Your task to perform on an android device: Is it going to rain this weekend? Image 0: 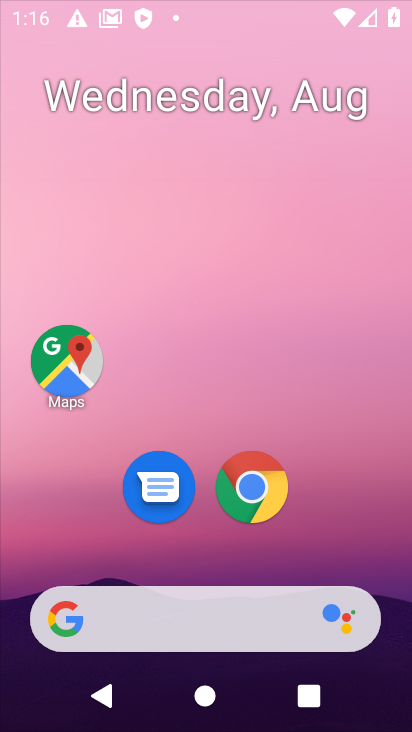
Step 0: press home button
Your task to perform on an android device: Is it going to rain this weekend? Image 1: 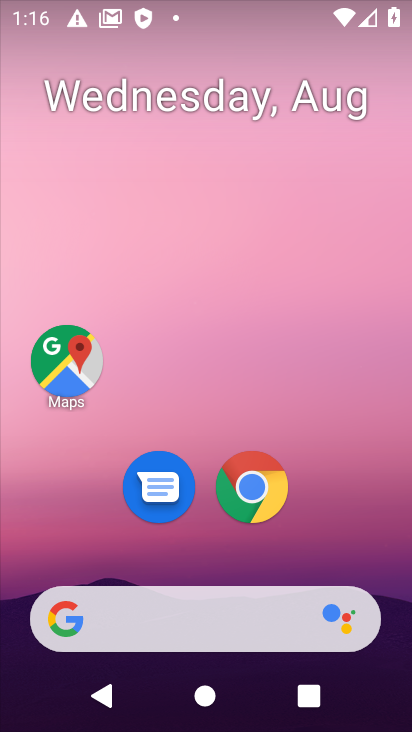
Step 1: click (53, 614)
Your task to perform on an android device: Is it going to rain this weekend? Image 2: 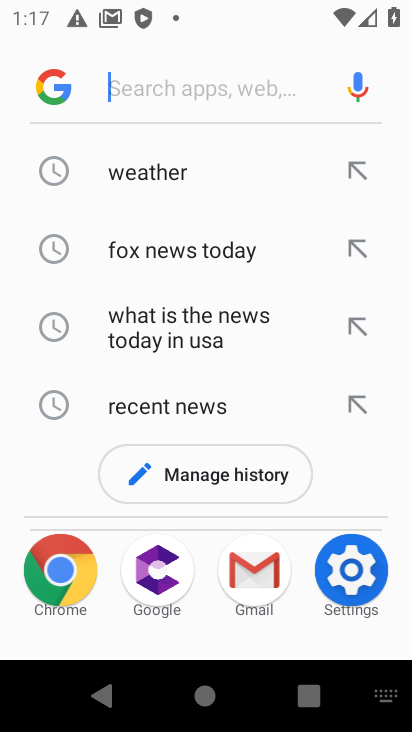
Step 2: type "rain this weekend?"
Your task to perform on an android device: Is it going to rain this weekend? Image 3: 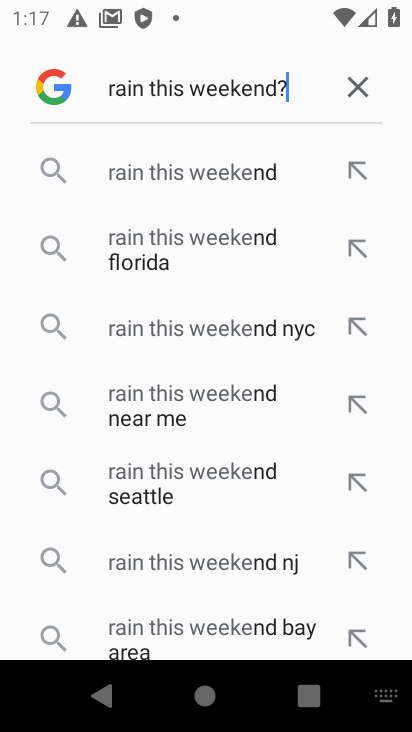
Step 3: press enter
Your task to perform on an android device: Is it going to rain this weekend? Image 4: 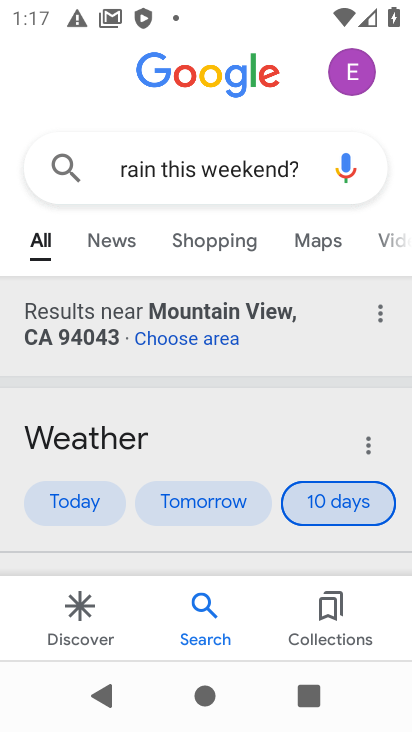
Step 4: task complete